Your task to perform on an android device: Open Chrome and go to the settings page Image 0: 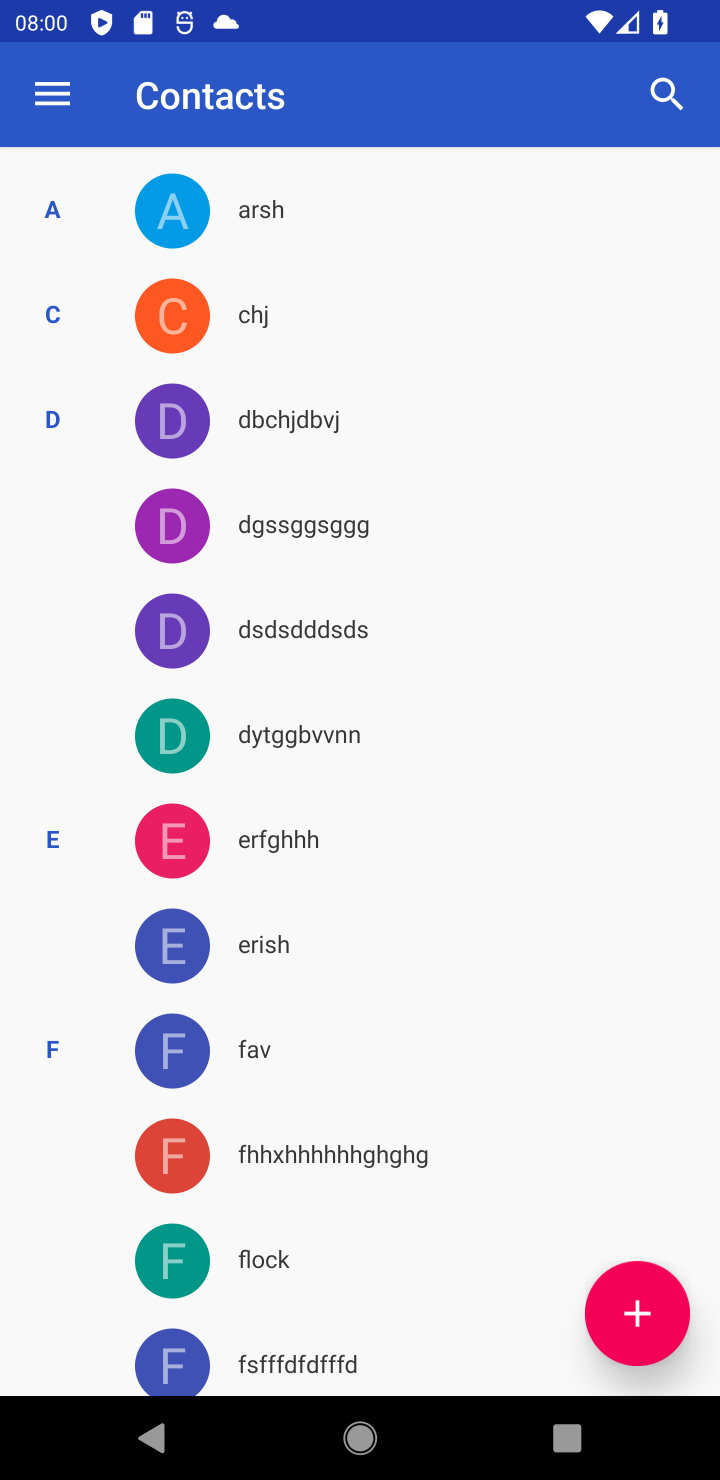
Step 0: press home button
Your task to perform on an android device: Open Chrome and go to the settings page Image 1: 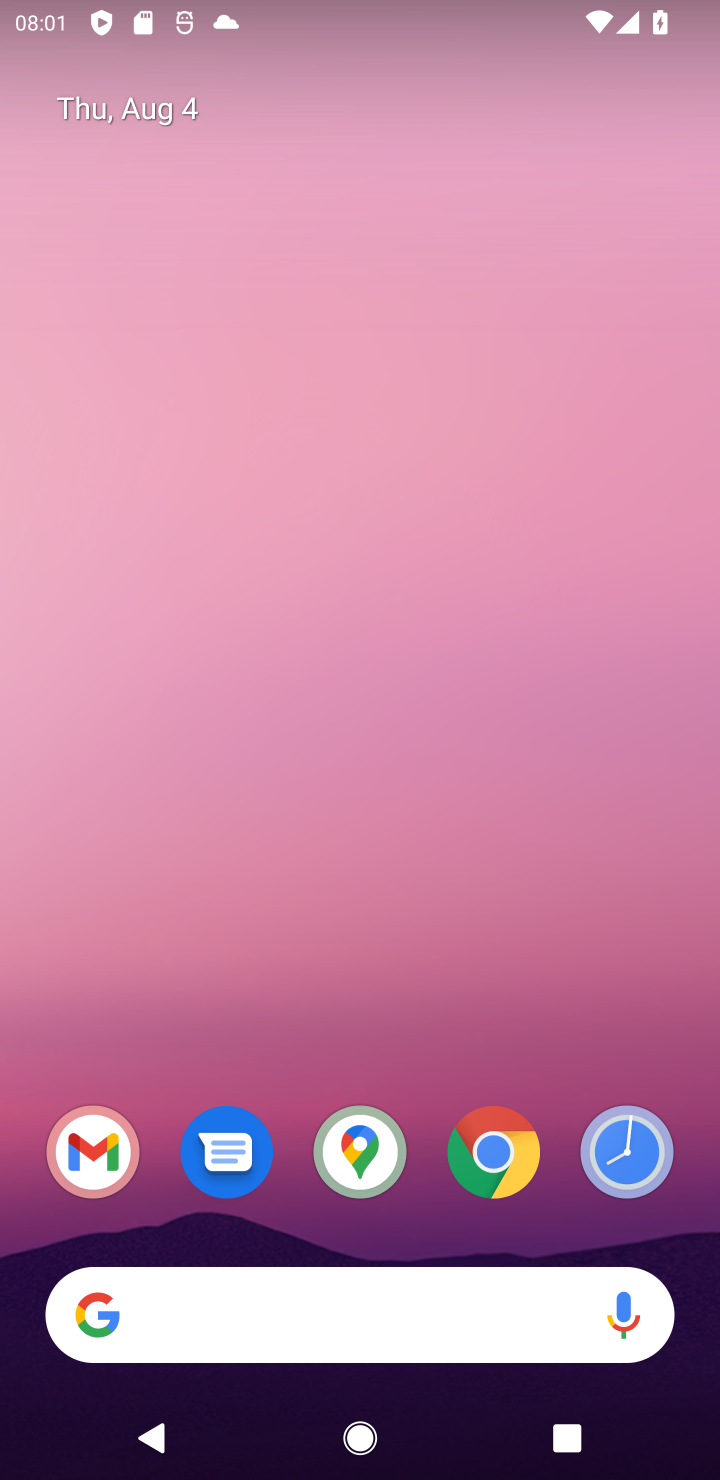
Step 1: click (461, 1148)
Your task to perform on an android device: Open Chrome and go to the settings page Image 2: 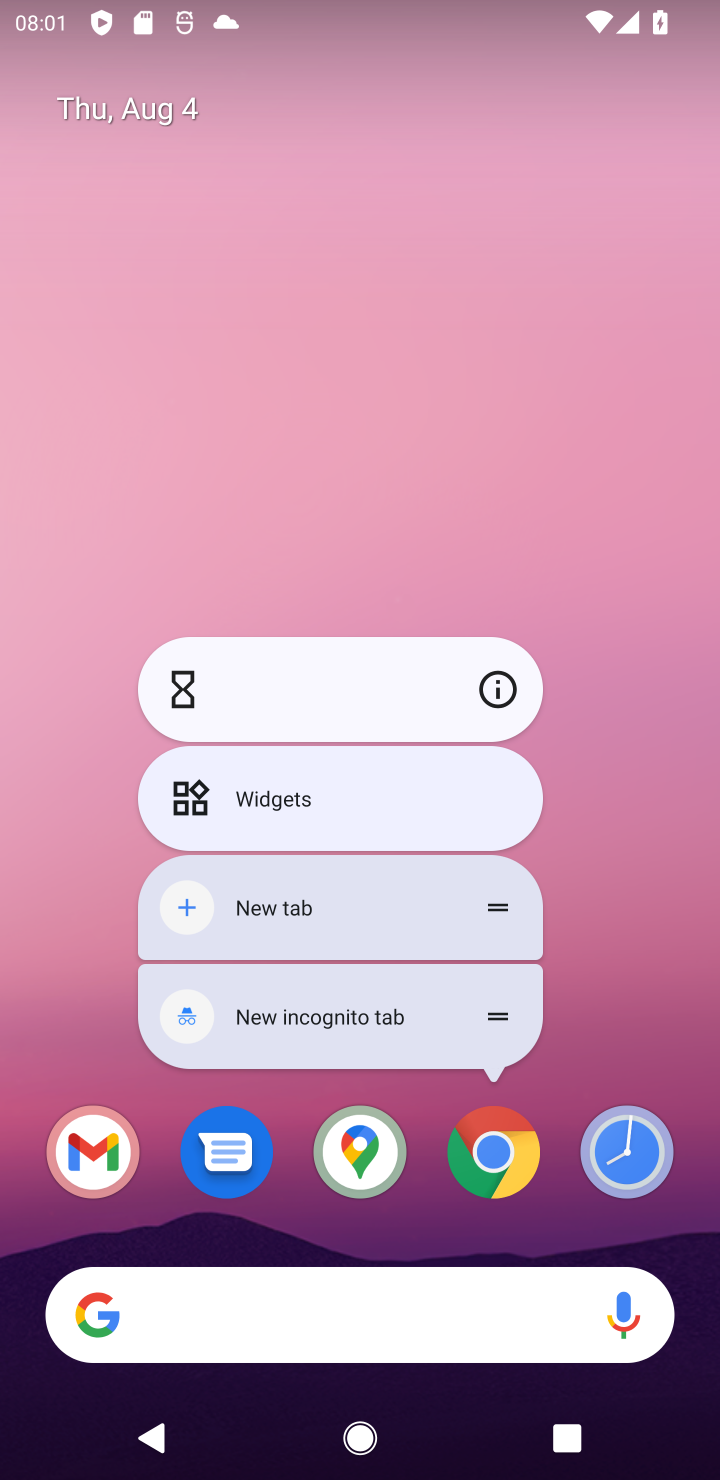
Step 2: click (461, 1148)
Your task to perform on an android device: Open Chrome and go to the settings page Image 3: 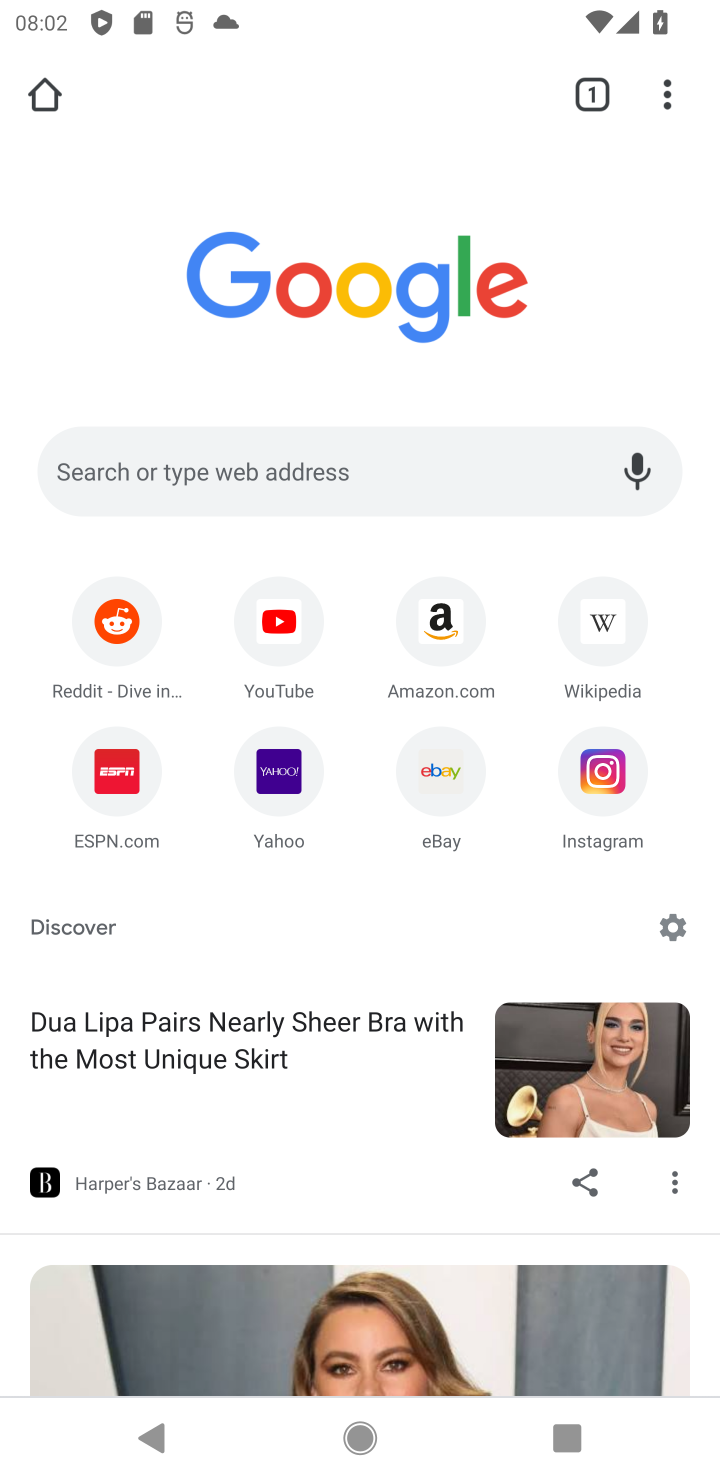
Step 3: click (660, 105)
Your task to perform on an android device: Open Chrome and go to the settings page Image 4: 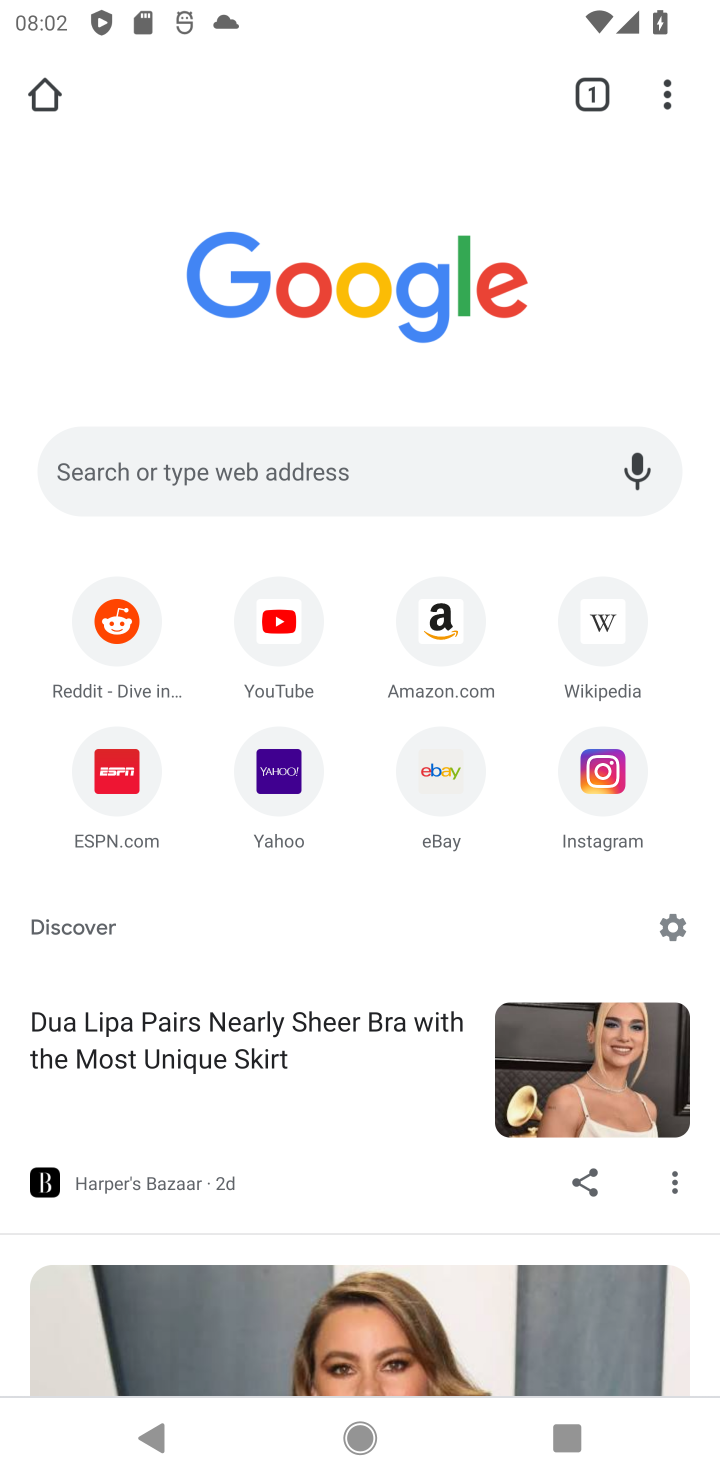
Step 4: click (659, 102)
Your task to perform on an android device: Open Chrome and go to the settings page Image 5: 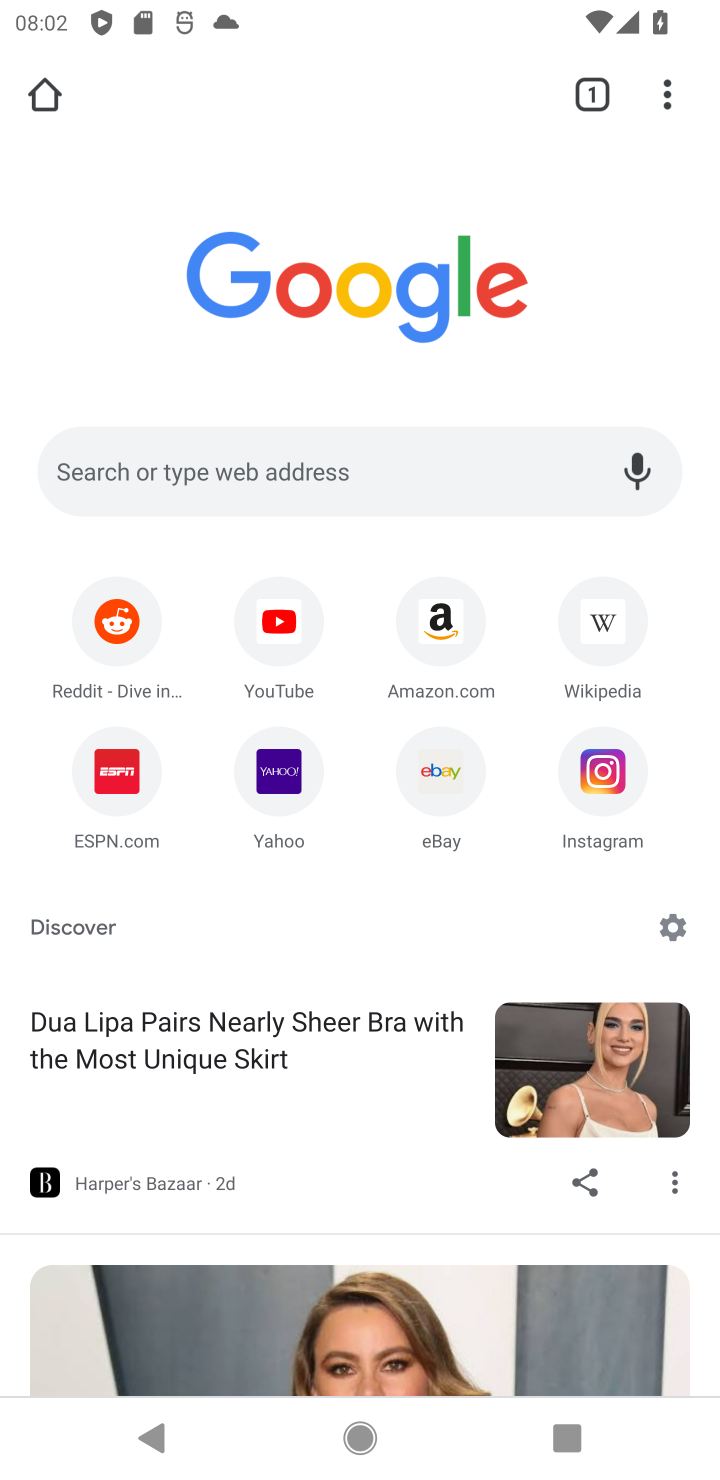
Step 5: click (307, 967)
Your task to perform on an android device: Open Chrome and go to the settings page Image 6: 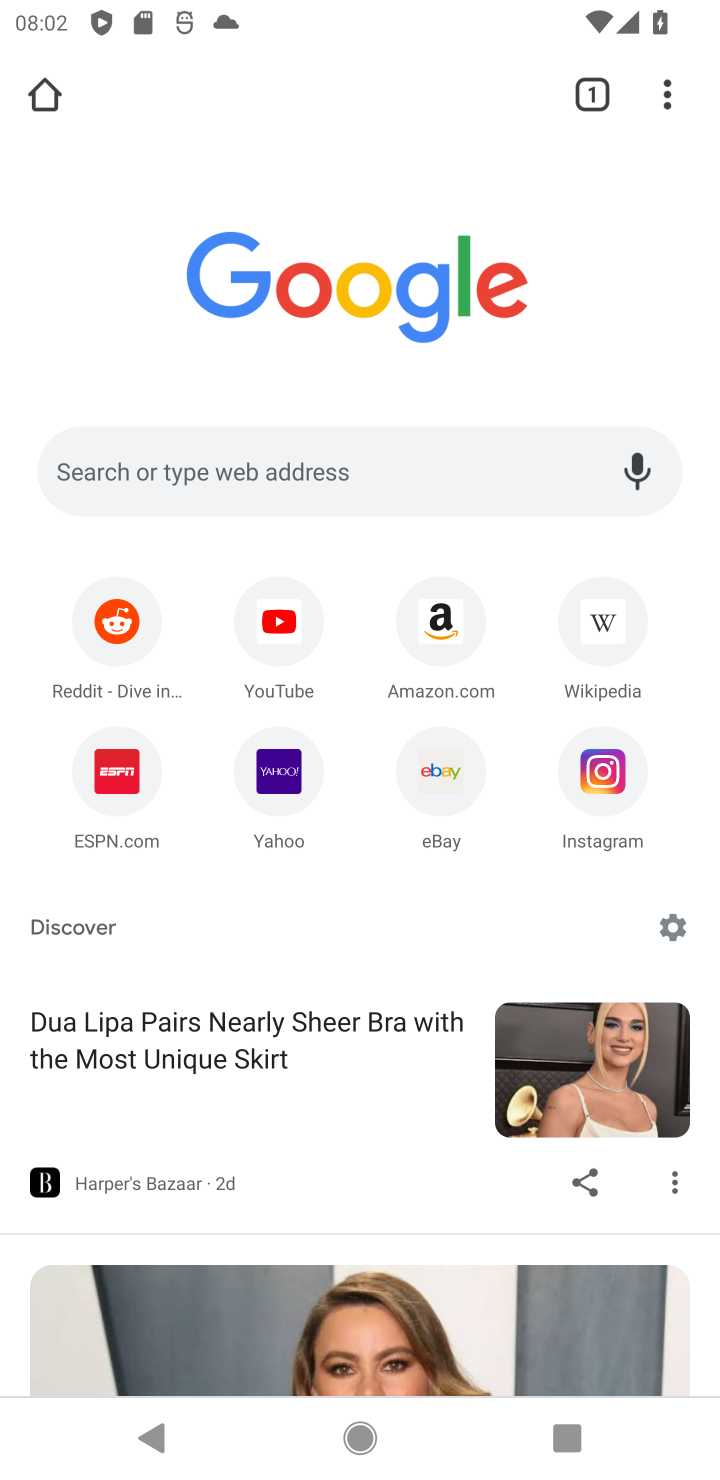
Step 6: click (667, 71)
Your task to perform on an android device: Open Chrome and go to the settings page Image 7: 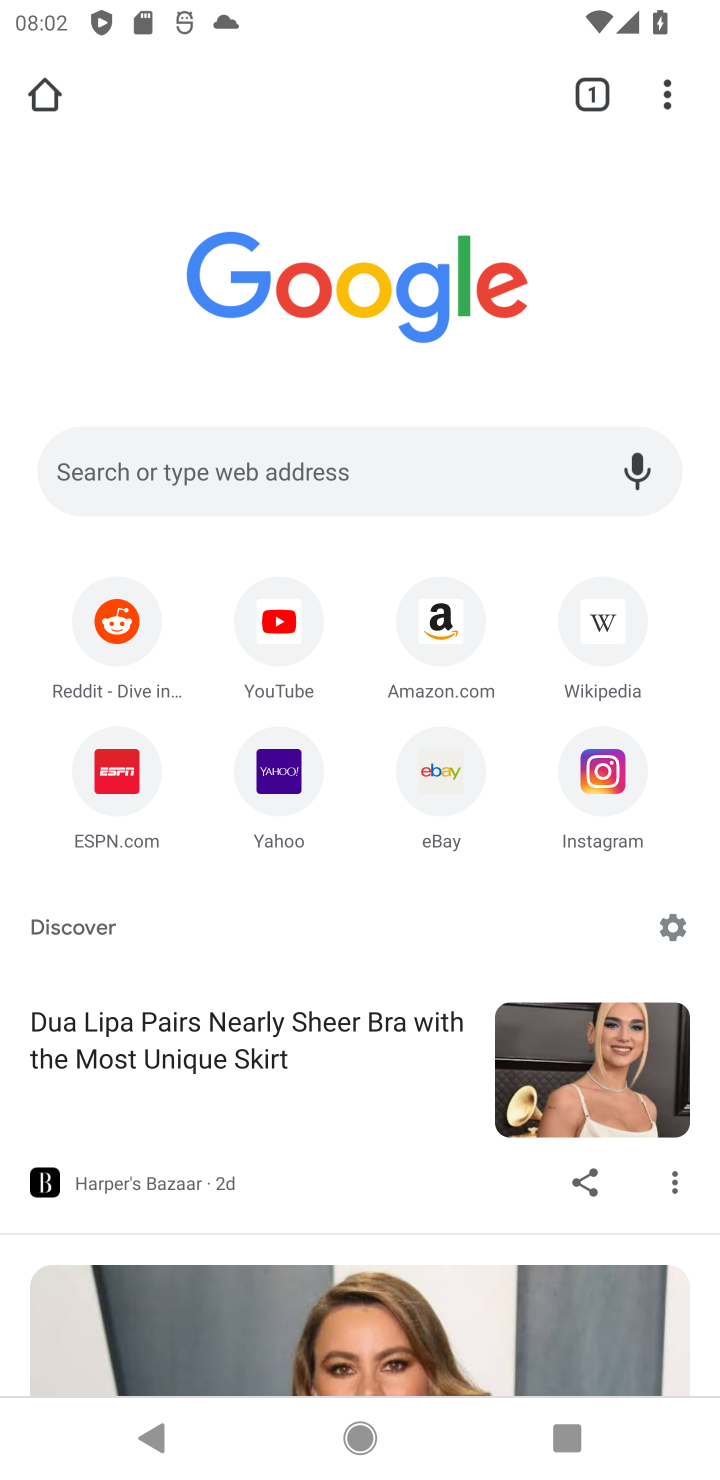
Step 7: click (660, 82)
Your task to perform on an android device: Open Chrome and go to the settings page Image 8: 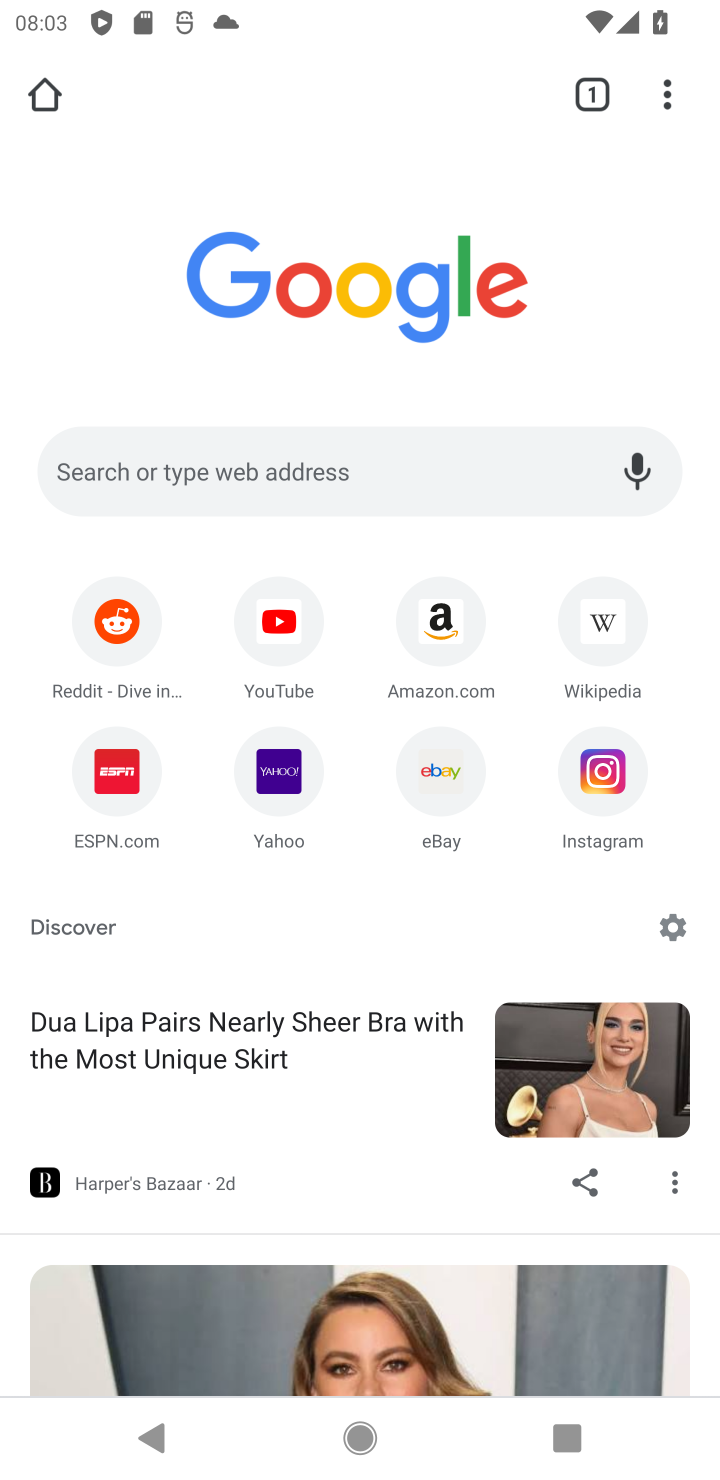
Step 8: task complete